Your task to perform on an android device: Turn off the flashlight Image 0: 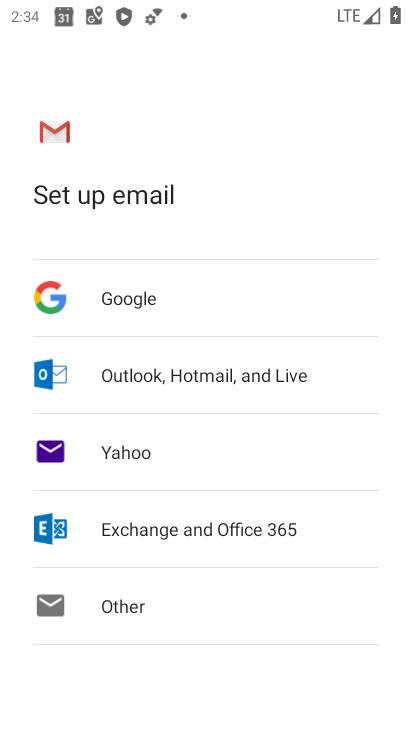
Step 0: press home button
Your task to perform on an android device: Turn off the flashlight Image 1: 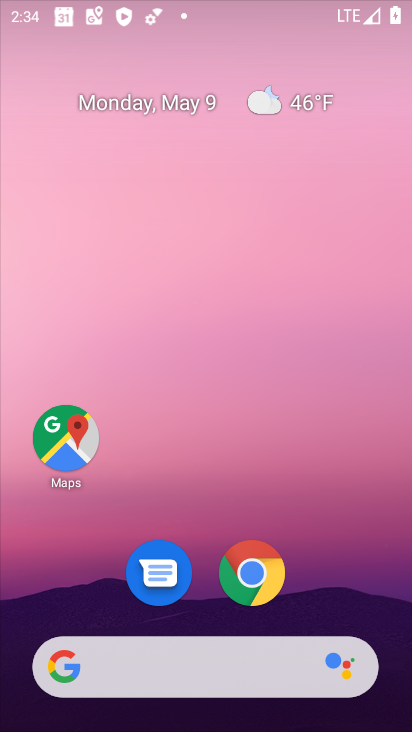
Step 1: drag from (203, 593) to (231, 43)
Your task to perform on an android device: Turn off the flashlight Image 2: 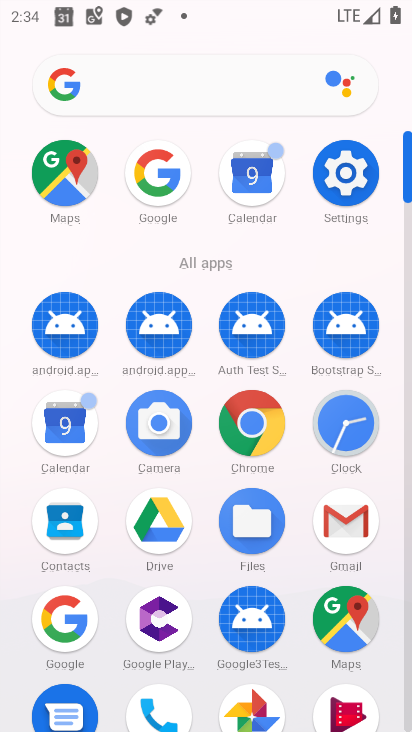
Step 2: click (342, 166)
Your task to perform on an android device: Turn off the flashlight Image 3: 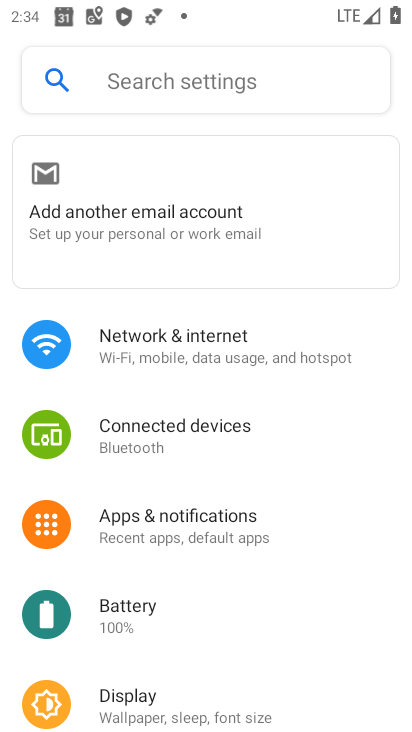
Step 3: click (196, 85)
Your task to perform on an android device: Turn off the flashlight Image 4: 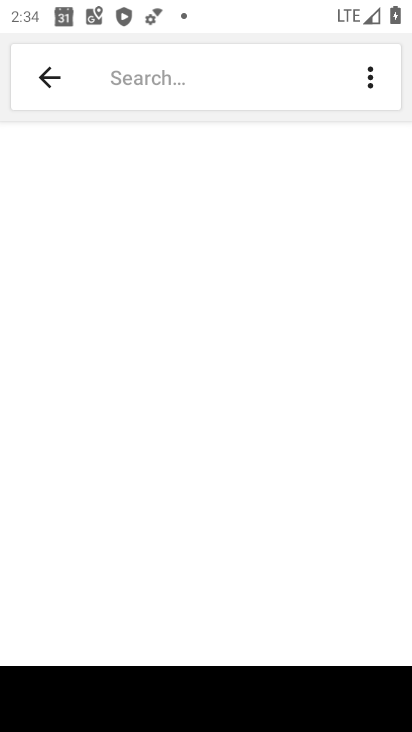
Step 4: type "flash"
Your task to perform on an android device: Turn off the flashlight Image 5: 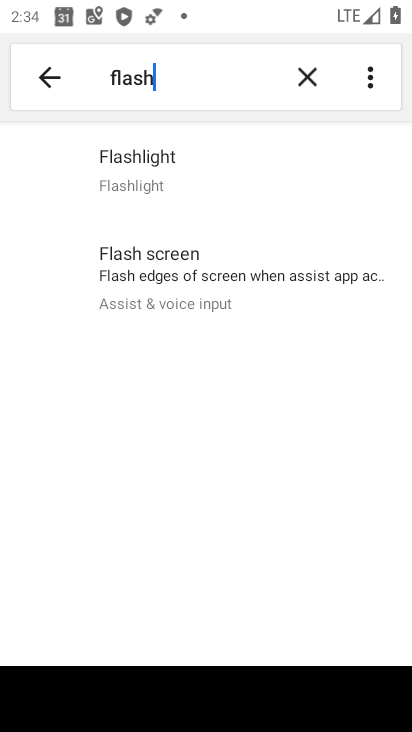
Step 5: task complete